Your task to perform on an android device: turn off smart reply in the gmail app Image 0: 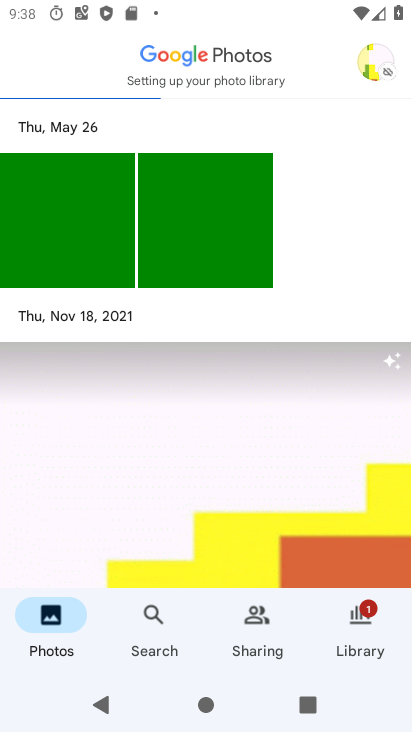
Step 0: press home button
Your task to perform on an android device: turn off smart reply in the gmail app Image 1: 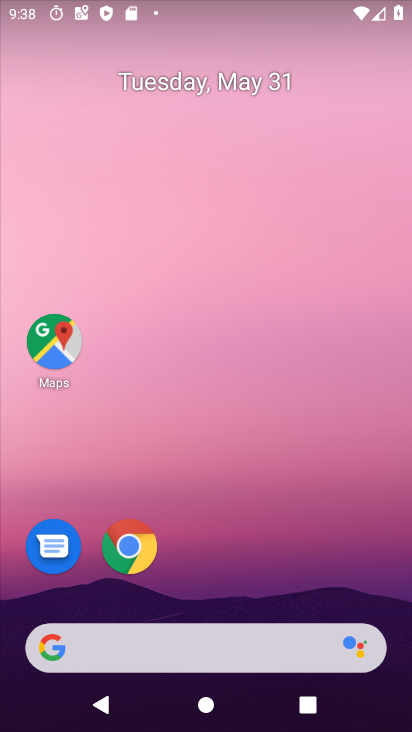
Step 1: drag from (226, 564) to (207, 227)
Your task to perform on an android device: turn off smart reply in the gmail app Image 2: 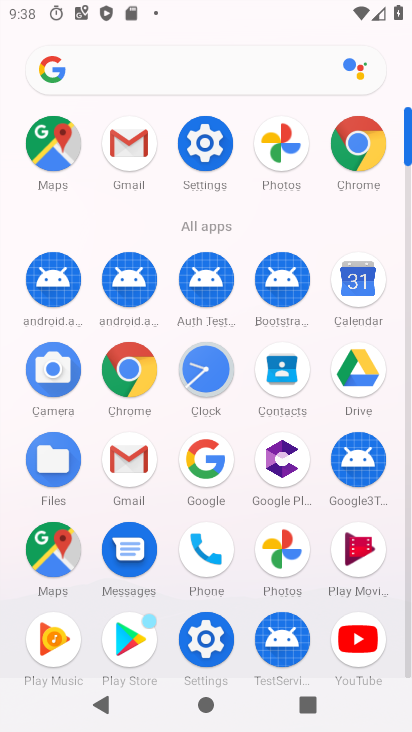
Step 2: click (135, 458)
Your task to perform on an android device: turn off smart reply in the gmail app Image 3: 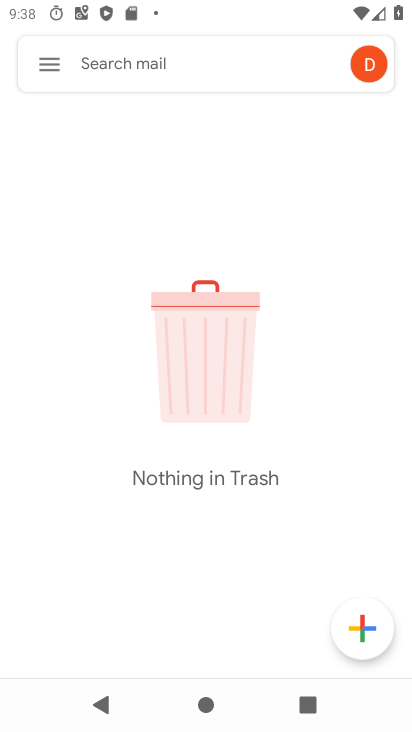
Step 3: click (49, 61)
Your task to perform on an android device: turn off smart reply in the gmail app Image 4: 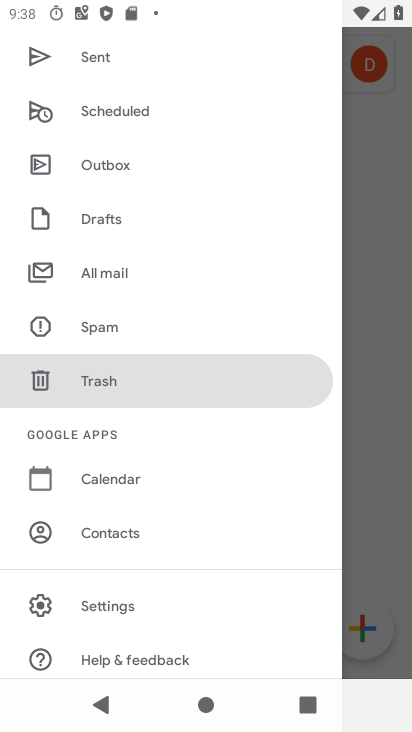
Step 4: click (114, 600)
Your task to perform on an android device: turn off smart reply in the gmail app Image 5: 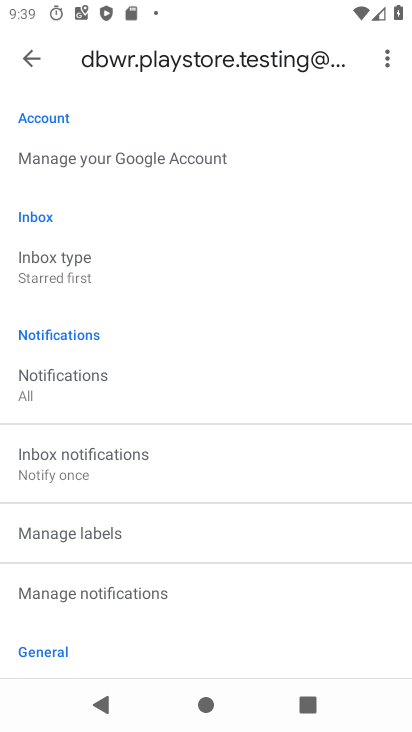
Step 5: drag from (224, 634) to (218, 239)
Your task to perform on an android device: turn off smart reply in the gmail app Image 6: 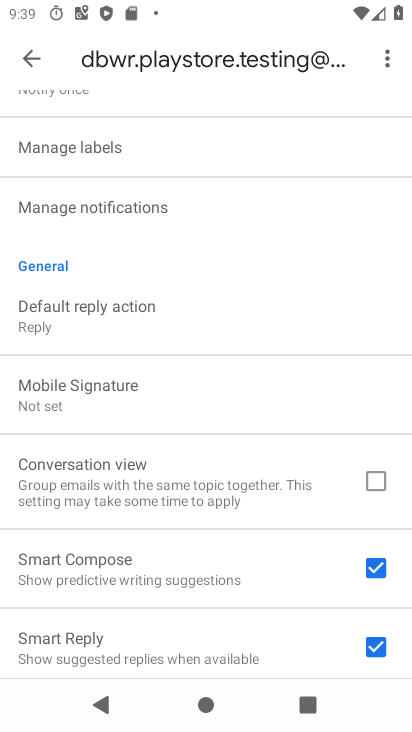
Step 6: click (380, 641)
Your task to perform on an android device: turn off smart reply in the gmail app Image 7: 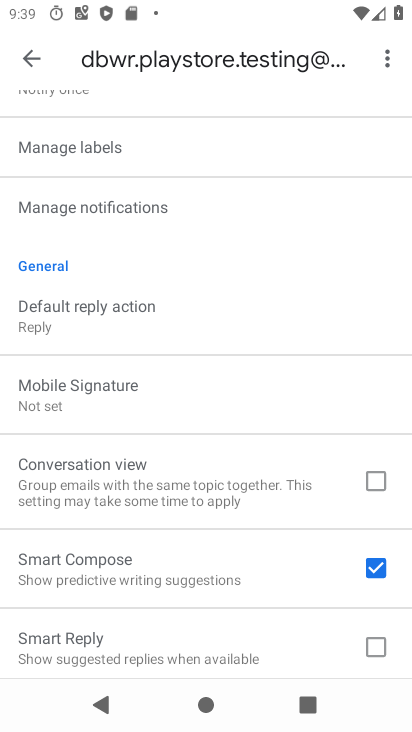
Step 7: task complete